Your task to perform on an android device: toggle priority inbox in the gmail app Image 0: 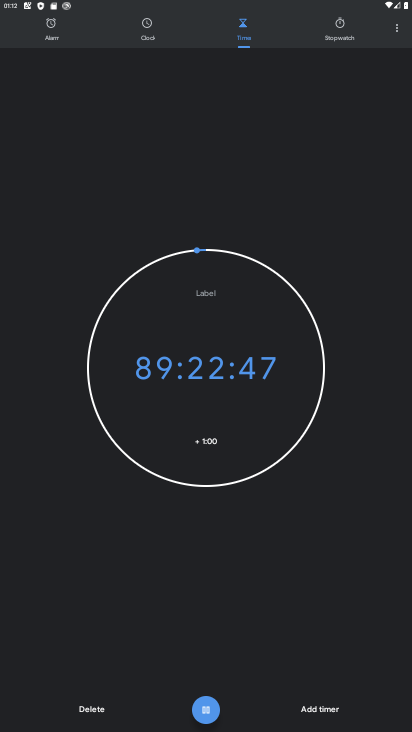
Step 0: press home button
Your task to perform on an android device: toggle priority inbox in the gmail app Image 1: 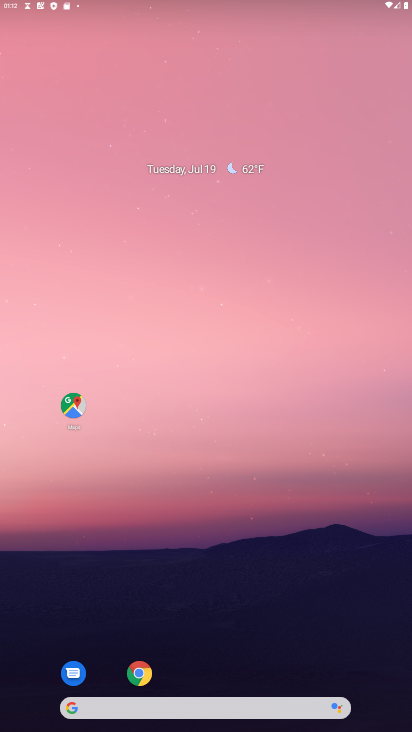
Step 1: drag from (210, 597) to (225, 163)
Your task to perform on an android device: toggle priority inbox in the gmail app Image 2: 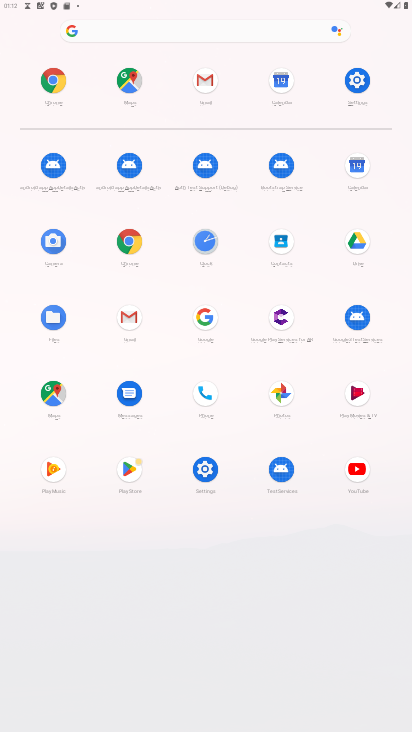
Step 2: click (127, 246)
Your task to perform on an android device: toggle priority inbox in the gmail app Image 3: 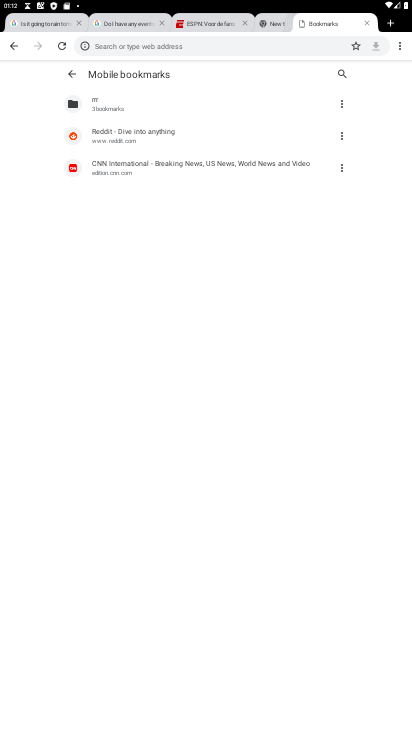
Step 3: click (406, 41)
Your task to perform on an android device: toggle priority inbox in the gmail app Image 4: 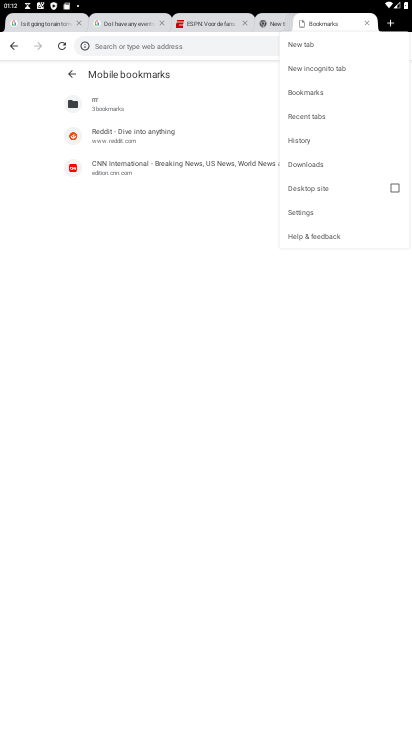
Step 4: click (309, 208)
Your task to perform on an android device: toggle priority inbox in the gmail app Image 5: 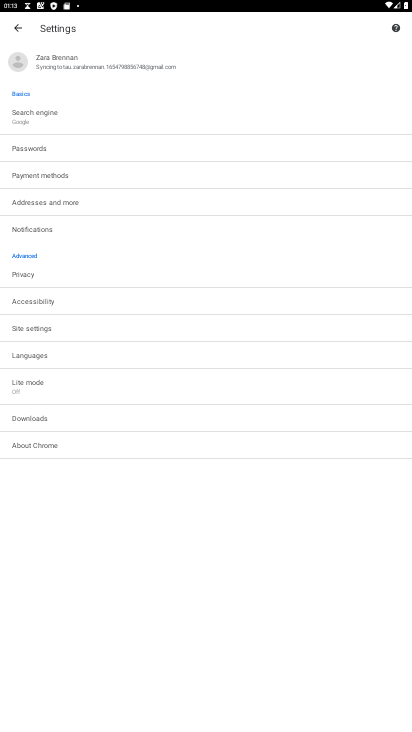
Step 5: press home button
Your task to perform on an android device: toggle priority inbox in the gmail app Image 6: 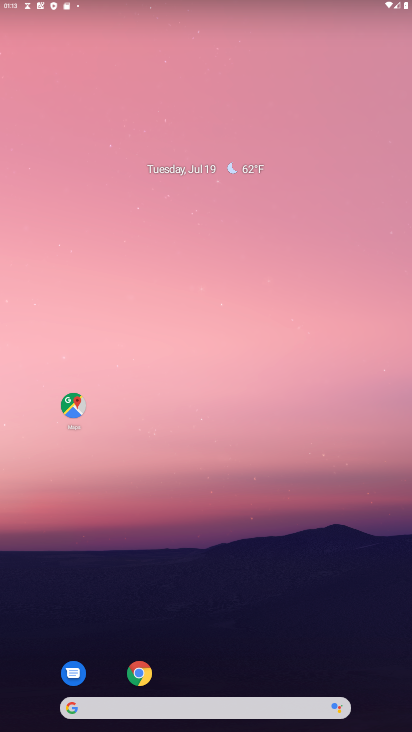
Step 6: drag from (190, 556) to (206, 180)
Your task to perform on an android device: toggle priority inbox in the gmail app Image 7: 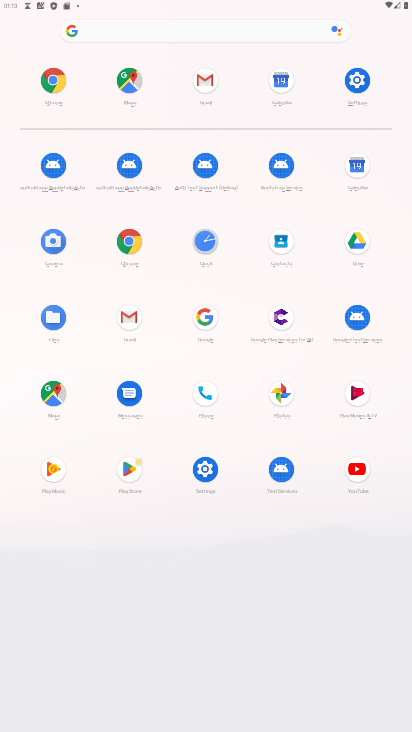
Step 7: click (197, 74)
Your task to perform on an android device: toggle priority inbox in the gmail app Image 8: 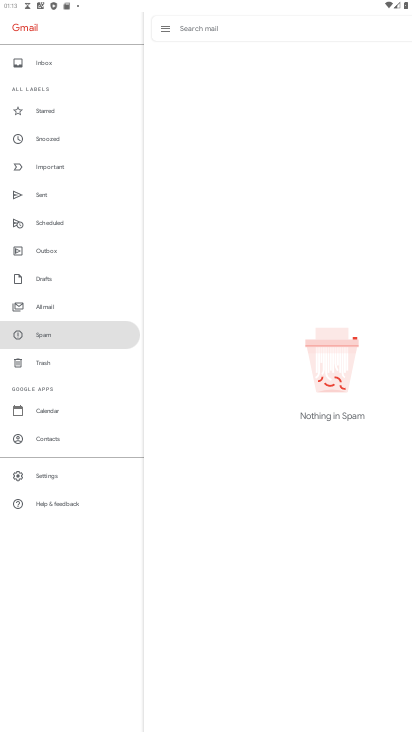
Step 8: click (50, 463)
Your task to perform on an android device: toggle priority inbox in the gmail app Image 9: 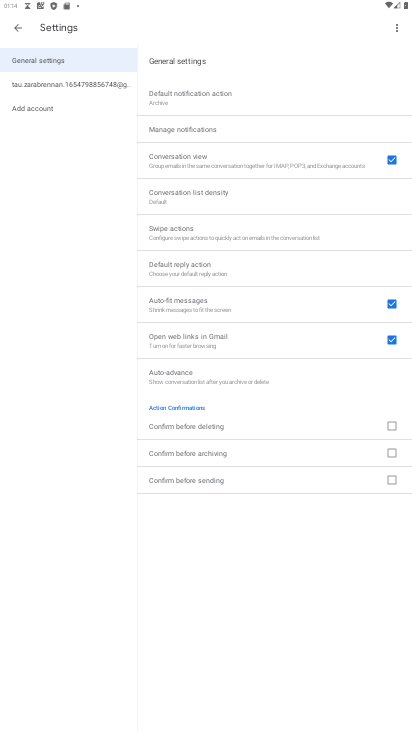
Step 9: click (63, 81)
Your task to perform on an android device: toggle priority inbox in the gmail app Image 10: 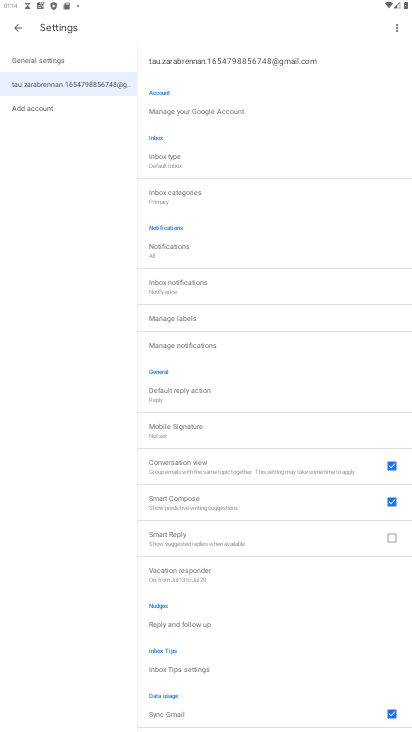
Step 10: click (175, 164)
Your task to perform on an android device: toggle priority inbox in the gmail app Image 11: 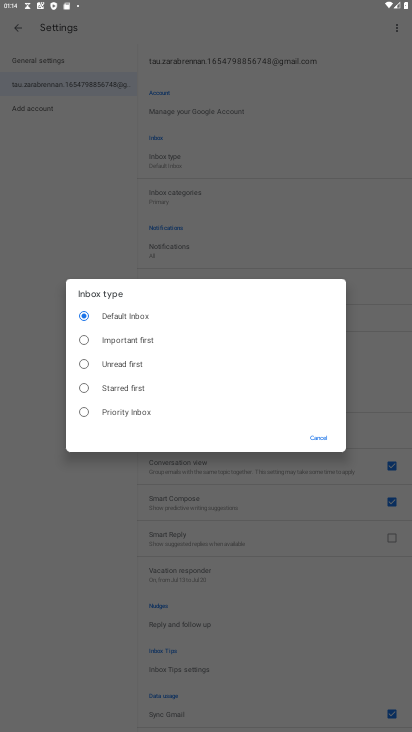
Step 11: click (117, 414)
Your task to perform on an android device: toggle priority inbox in the gmail app Image 12: 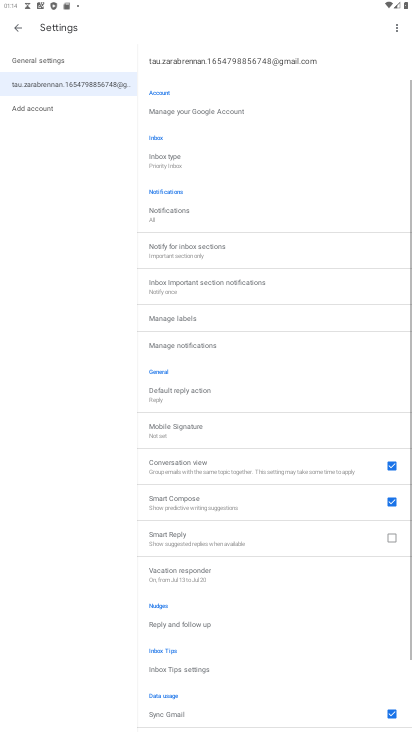
Step 12: task complete